Your task to perform on an android device: Show me popular games on the Play Store Image 0: 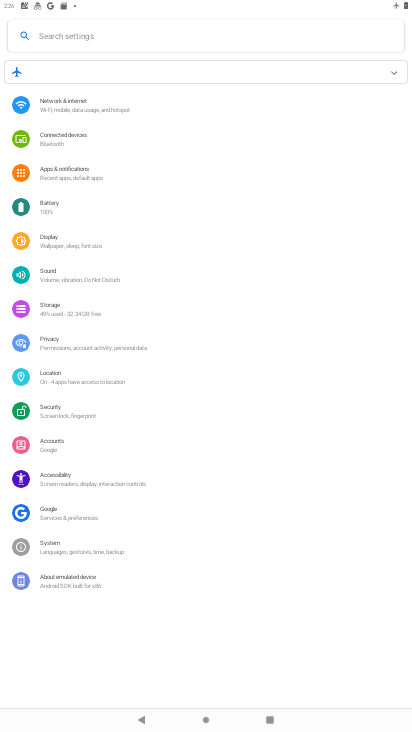
Step 0: press home button
Your task to perform on an android device: Show me popular games on the Play Store Image 1: 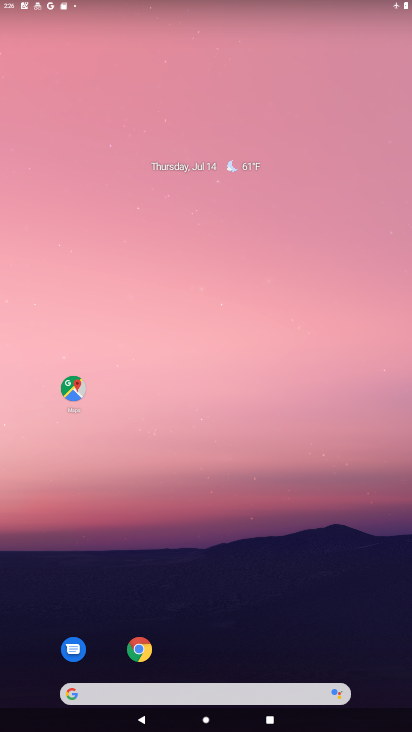
Step 1: drag from (359, 321) to (240, 0)
Your task to perform on an android device: Show me popular games on the Play Store Image 2: 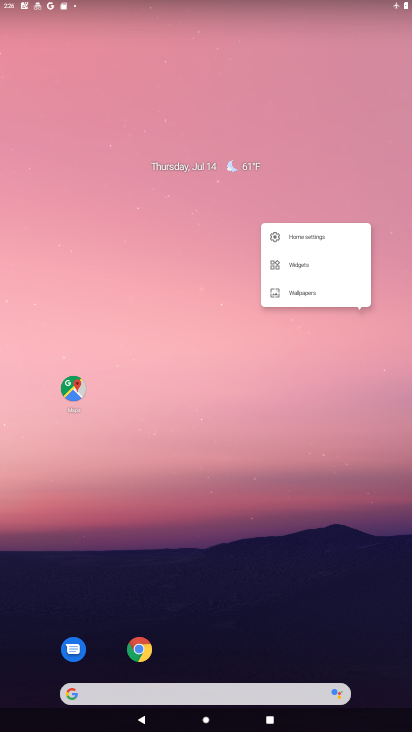
Step 2: drag from (263, 655) to (283, 43)
Your task to perform on an android device: Show me popular games on the Play Store Image 3: 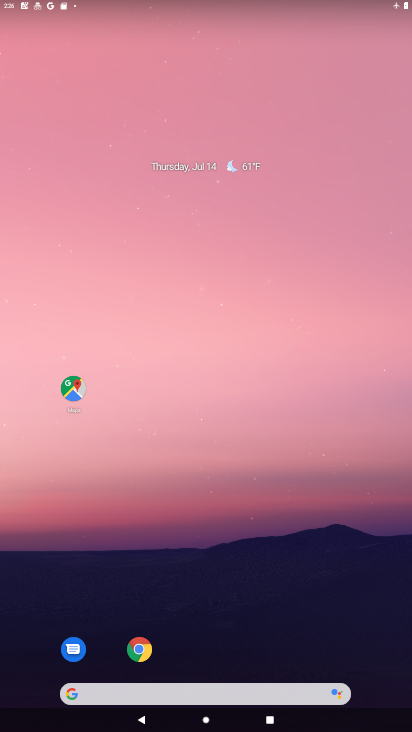
Step 3: drag from (316, 598) to (249, 54)
Your task to perform on an android device: Show me popular games on the Play Store Image 4: 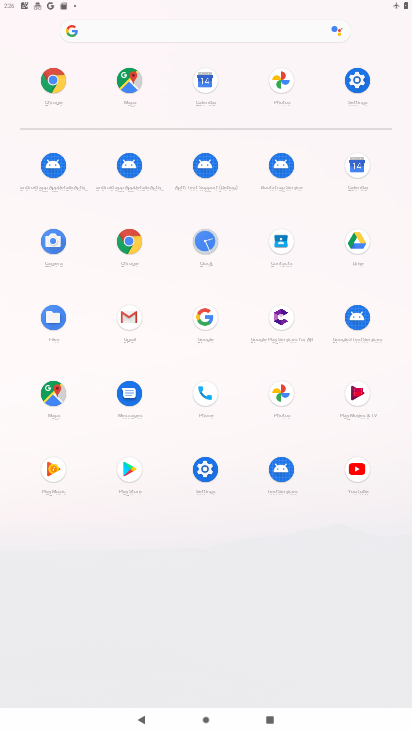
Step 4: click (124, 472)
Your task to perform on an android device: Show me popular games on the Play Store Image 5: 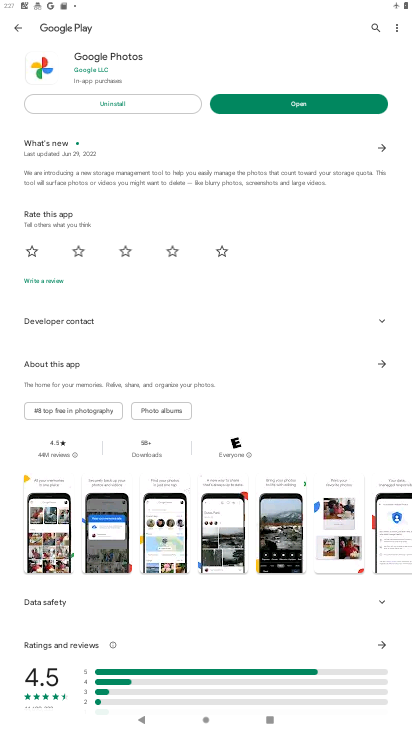
Step 5: press back button
Your task to perform on an android device: Show me popular games on the Play Store Image 6: 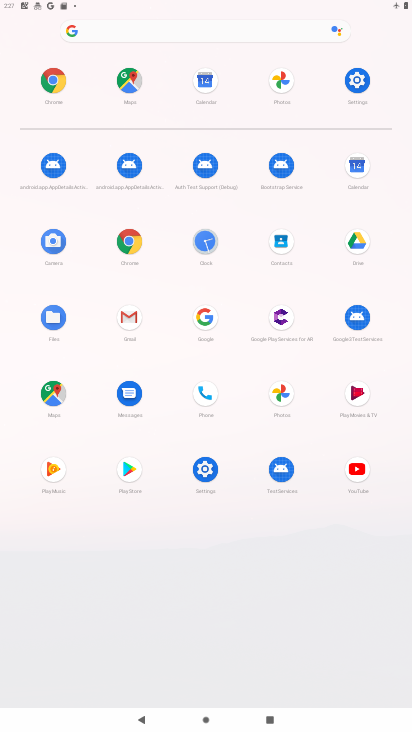
Step 6: click (133, 470)
Your task to perform on an android device: Show me popular games on the Play Store Image 7: 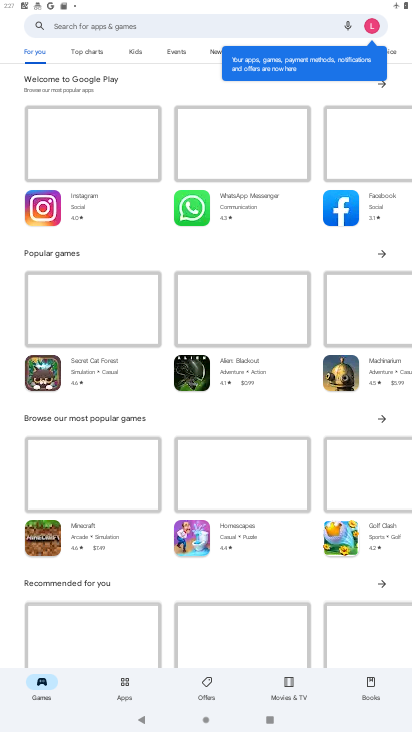
Step 7: drag from (153, 650) to (231, 228)
Your task to perform on an android device: Show me popular games on the Play Store Image 8: 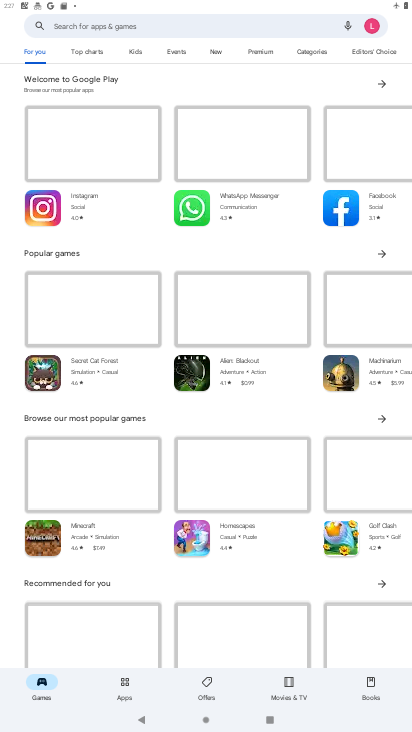
Step 8: click (387, 248)
Your task to perform on an android device: Show me popular games on the Play Store Image 9: 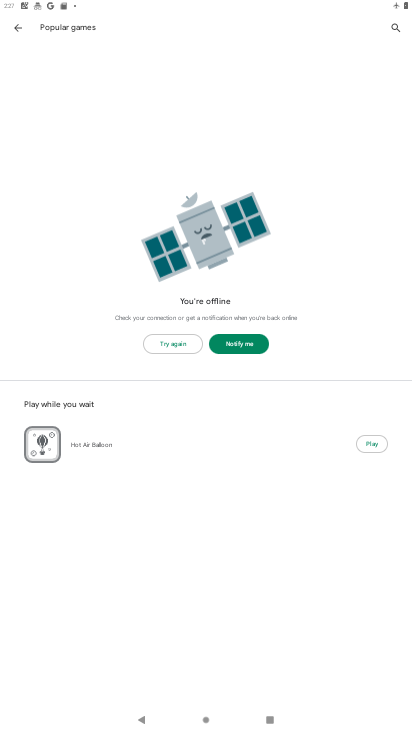
Step 9: click (175, 347)
Your task to perform on an android device: Show me popular games on the Play Store Image 10: 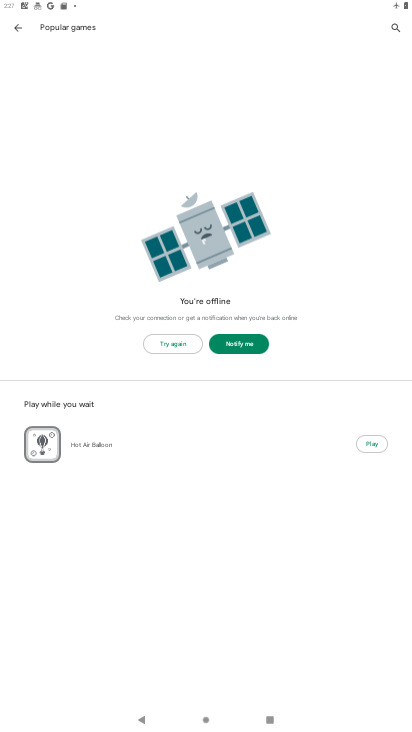
Step 10: task complete